Your task to perform on an android device: Open Google Image 0: 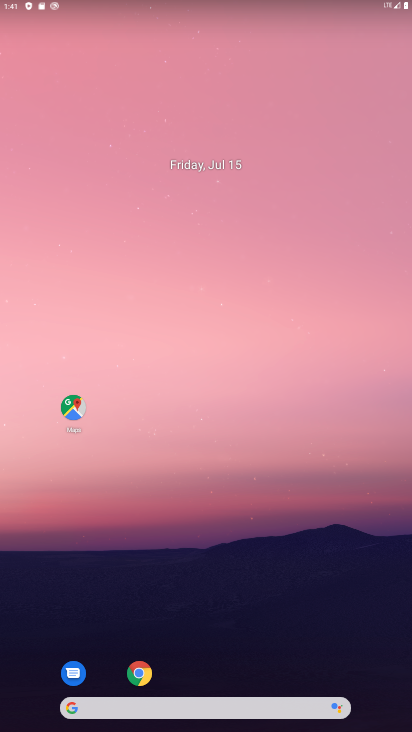
Step 0: drag from (246, 593) to (237, 181)
Your task to perform on an android device: Open Google Image 1: 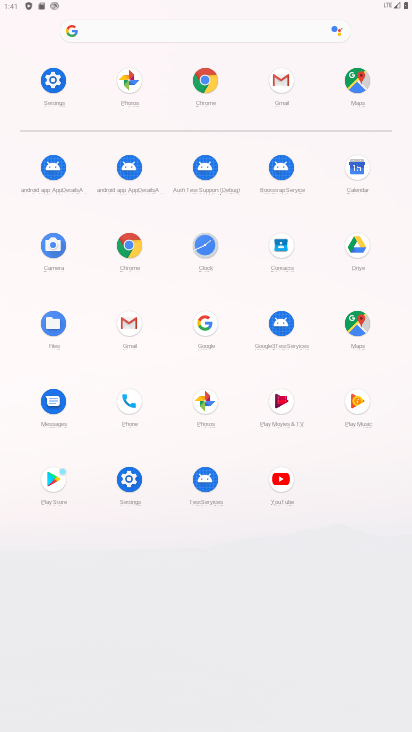
Step 1: click (205, 321)
Your task to perform on an android device: Open Google Image 2: 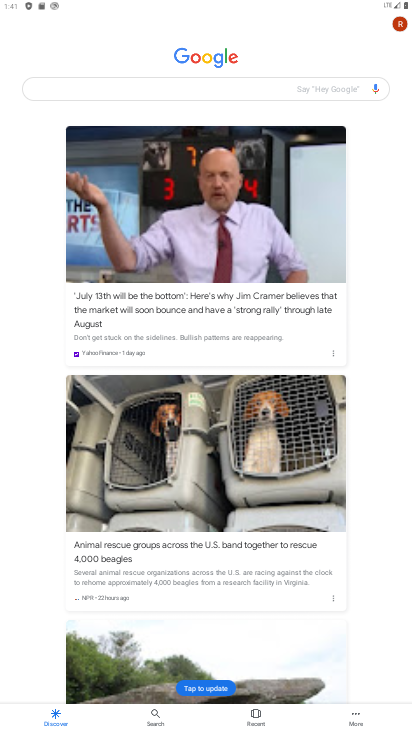
Step 2: task complete